Your task to perform on an android device: turn on location history Image 0: 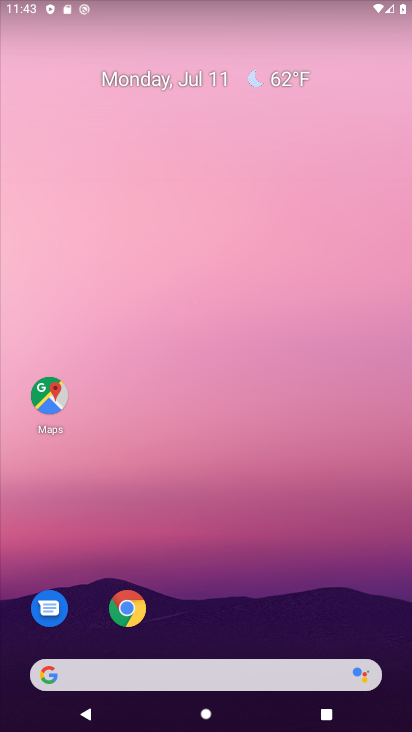
Step 0: drag from (356, 627) to (403, 3)
Your task to perform on an android device: turn on location history Image 1: 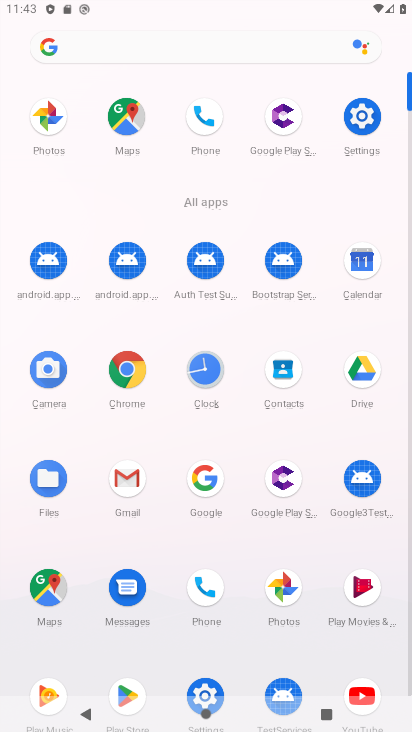
Step 1: click (362, 121)
Your task to perform on an android device: turn on location history Image 2: 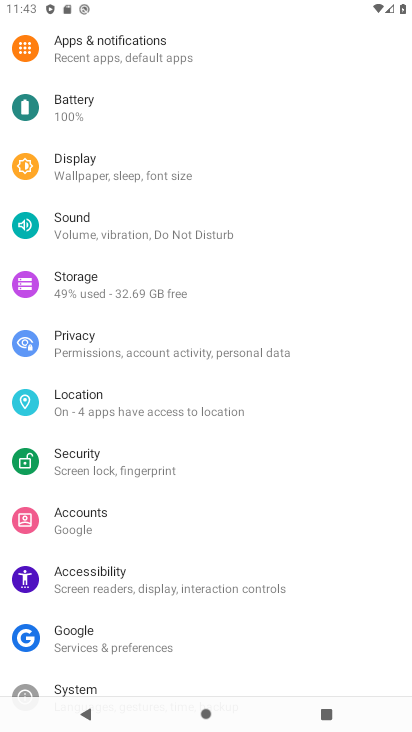
Step 2: drag from (267, 692) to (317, 30)
Your task to perform on an android device: turn on location history Image 3: 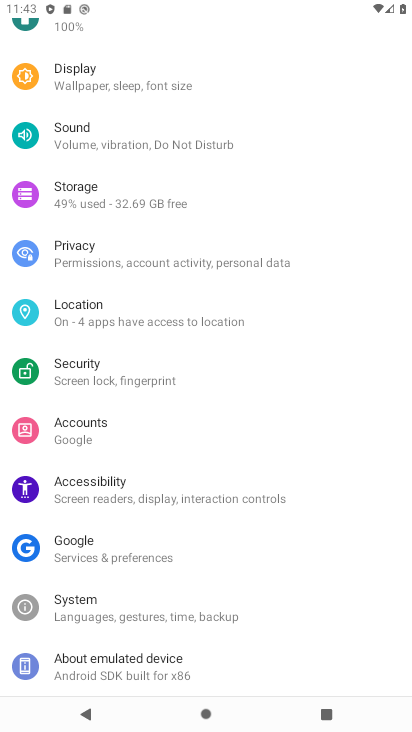
Step 3: click (111, 314)
Your task to perform on an android device: turn on location history Image 4: 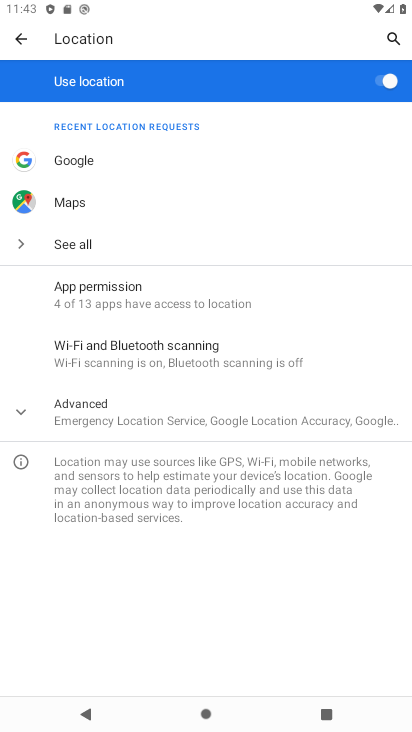
Step 4: task complete